Your task to perform on an android device: install app "LiveIn - Share Your Moment" Image 0: 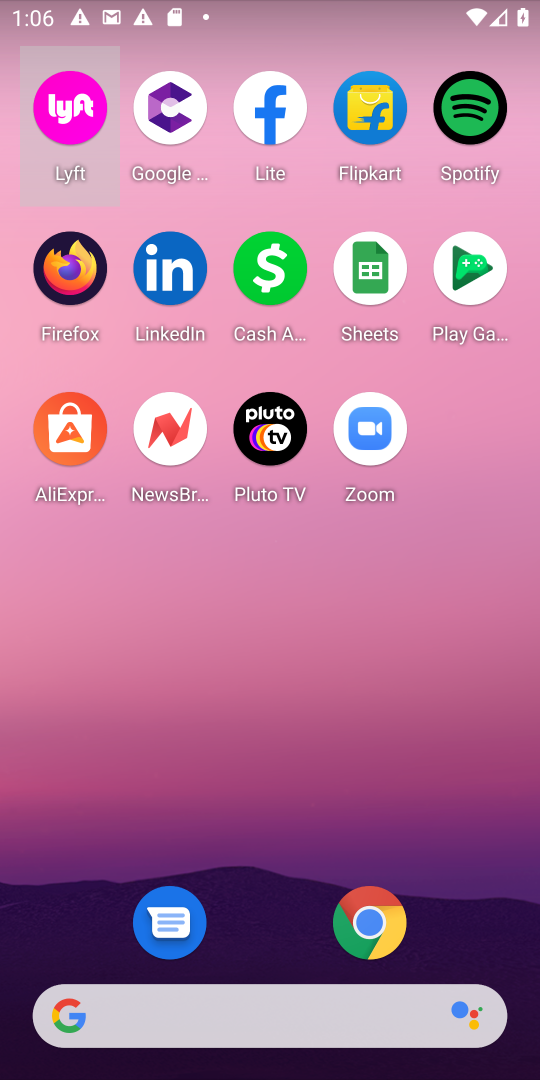
Step 0: drag from (250, 854) to (296, 71)
Your task to perform on an android device: install app "LiveIn - Share Your Moment" Image 1: 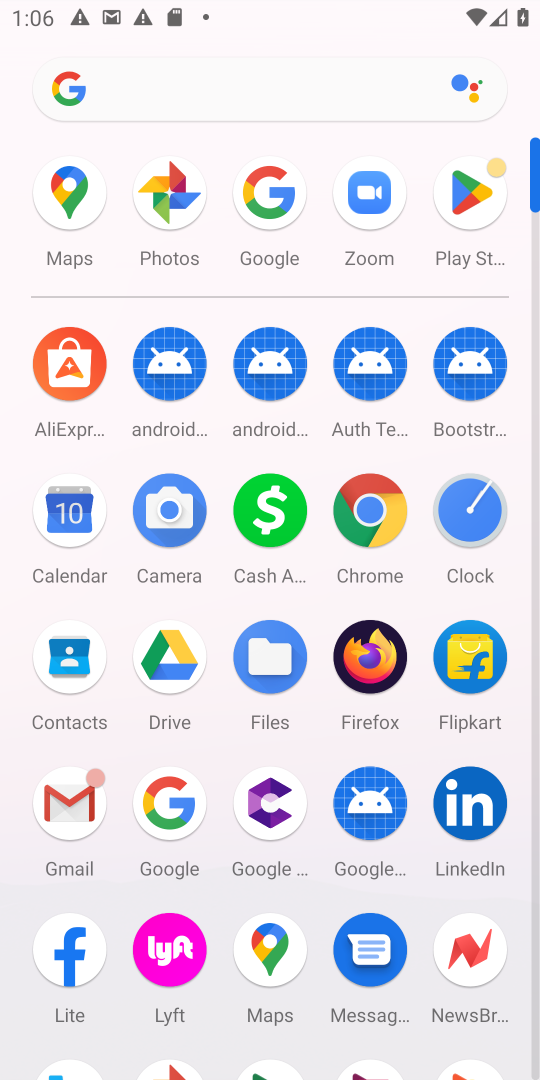
Step 1: click (458, 183)
Your task to perform on an android device: install app "LiveIn - Share Your Moment" Image 2: 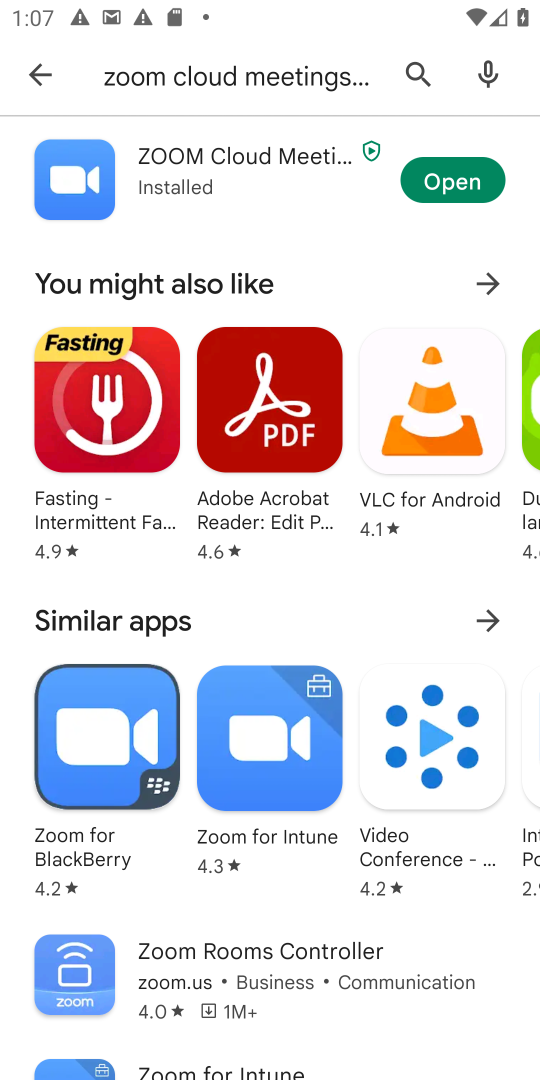
Step 2: click (33, 65)
Your task to perform on an android device: install app "LiveIn - Share Your Moment" Image 3: 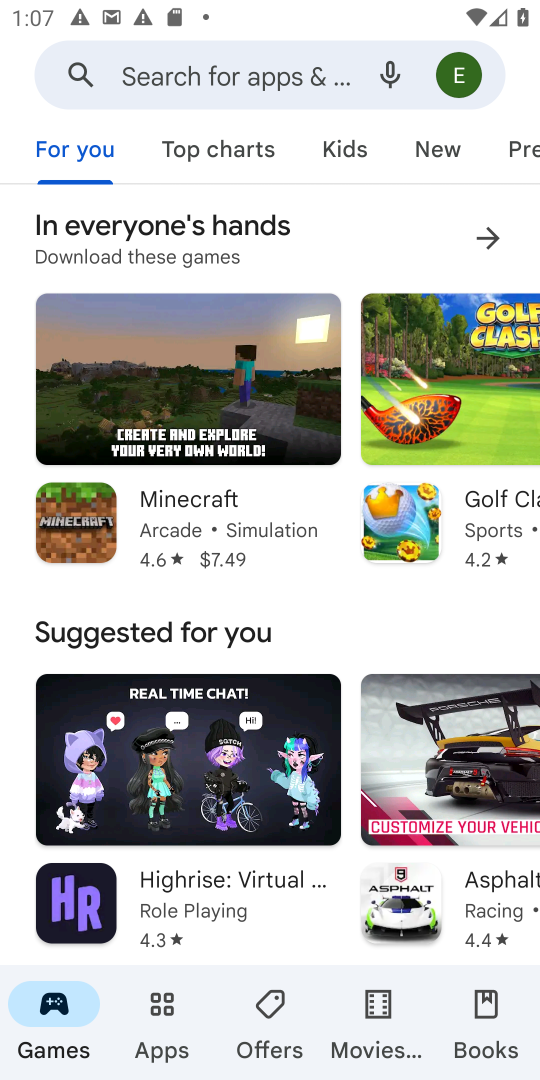
Step 3: click (41, 82)
Your task to perform on an android device: install app "LiveIn - Share Your Moment" Image 4: 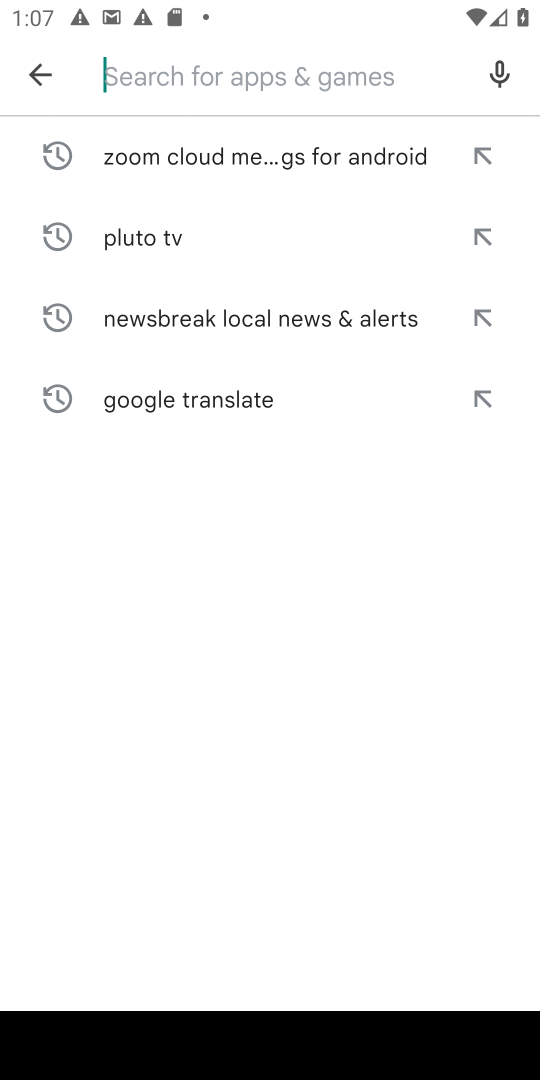
Step 4: click (265, 76)
Your task to perform on an android device: install app "LiveIn - Share Your Moment" Image 5: 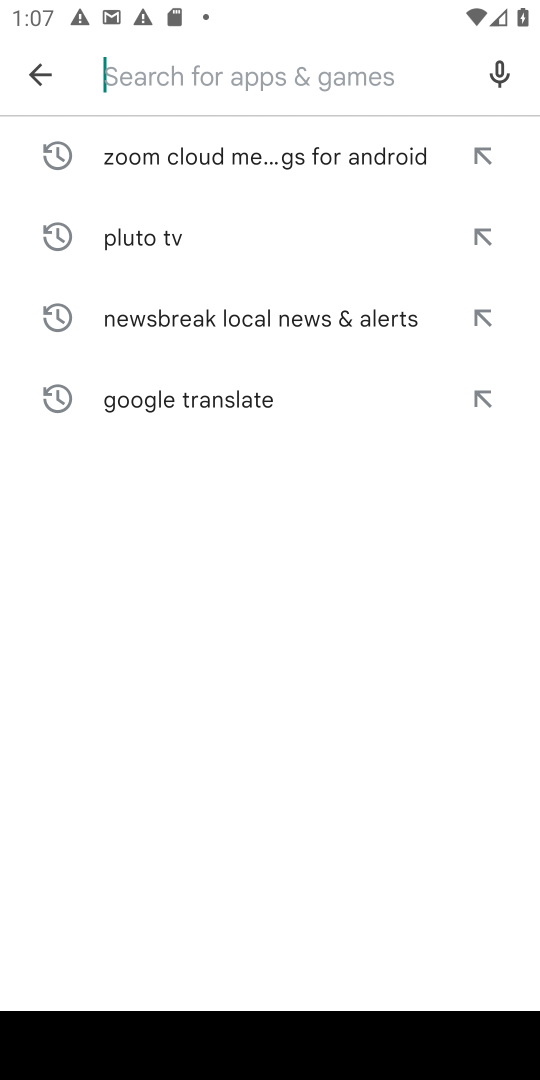
Step 5: type "LiveIn"
Your task to perform on an android device: install app "LiveIn - Share Your Moment" Image 6: 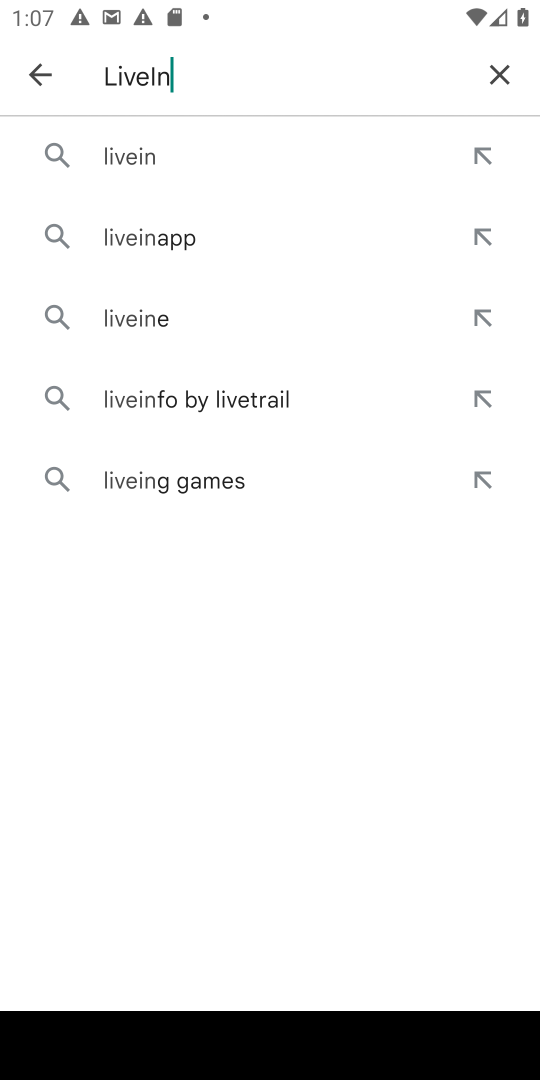
Step 6: click (118, 157)
Your task to perform on an android device: install app "LiveIn - Share Your Moment" Image 7: 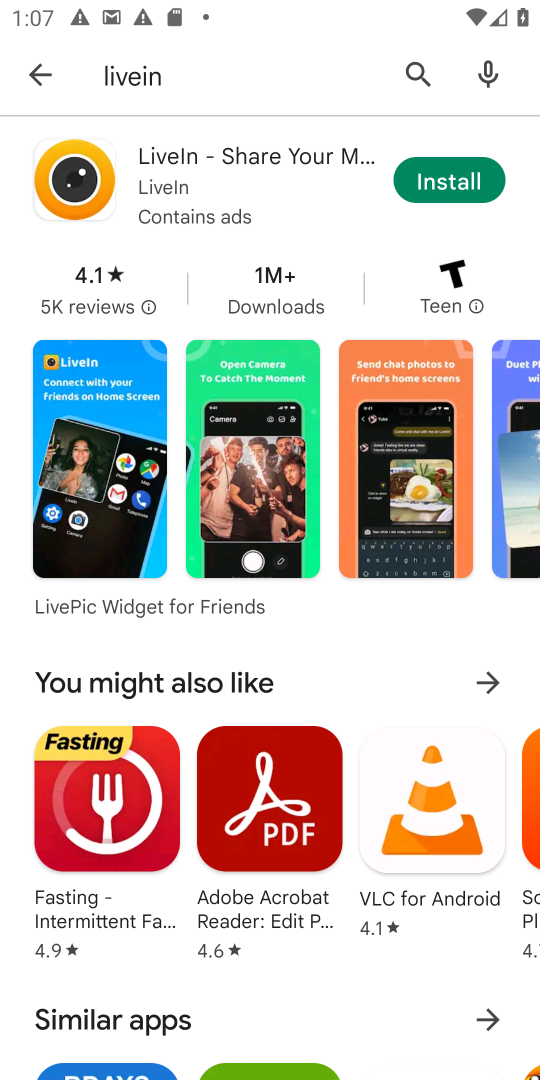
Step 7: click (453, 185)
Your task to perform on an android device: install app "LiveIn - Share Your Moment" Image 8: 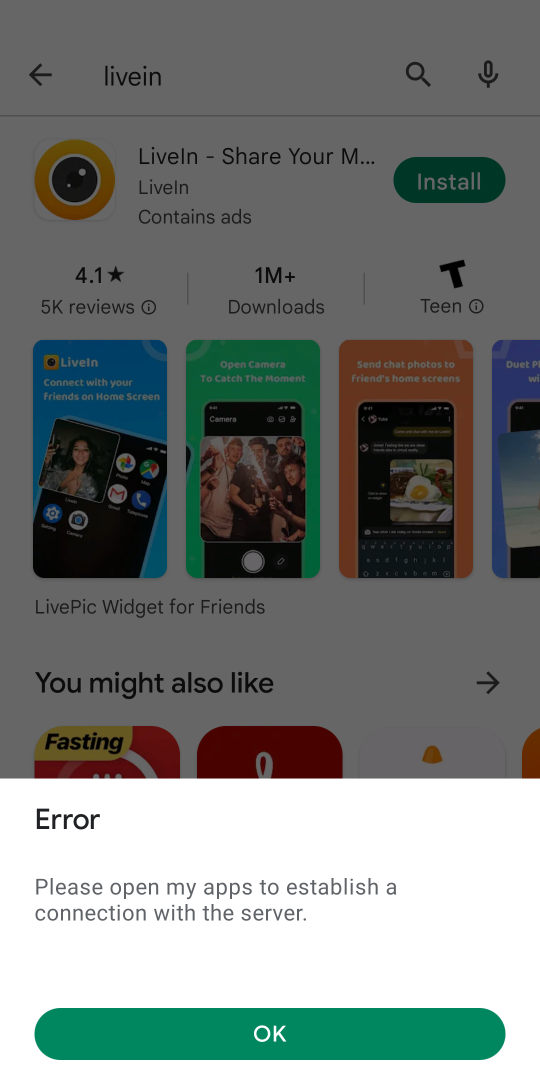
Step 8: task complete